Your task to perform on an android device: Search for "energizer triple a" on bestbuy.com, select the first entry, add it to the cart, then select checkout. Image 0: 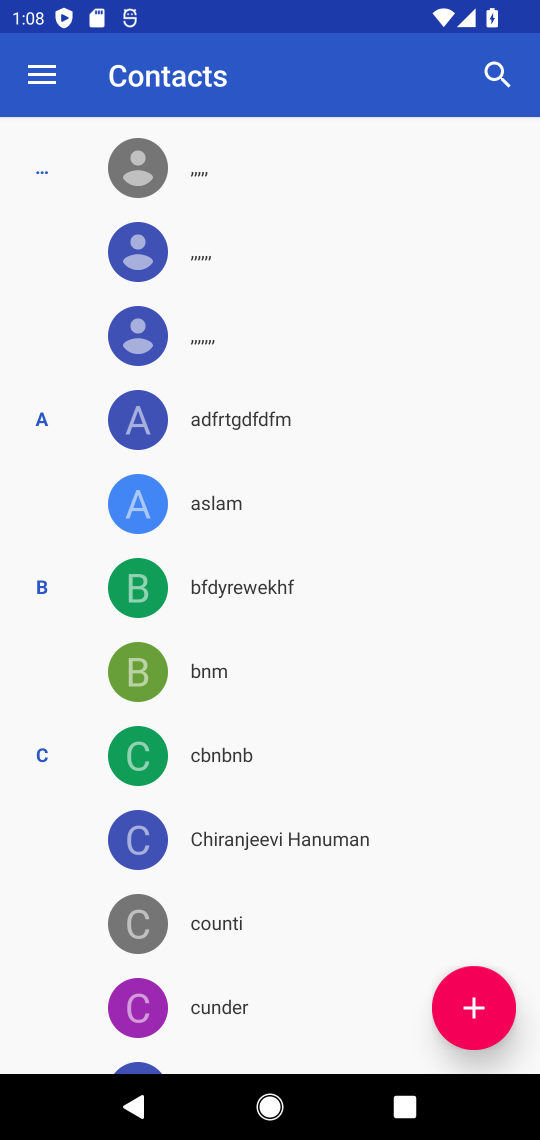
Step 0: press home button
Your task to perform on an android device: Search for "energizer triple a" on bestbuy.com, select the first entry, add it to the cart, then select checkout. Image 1: 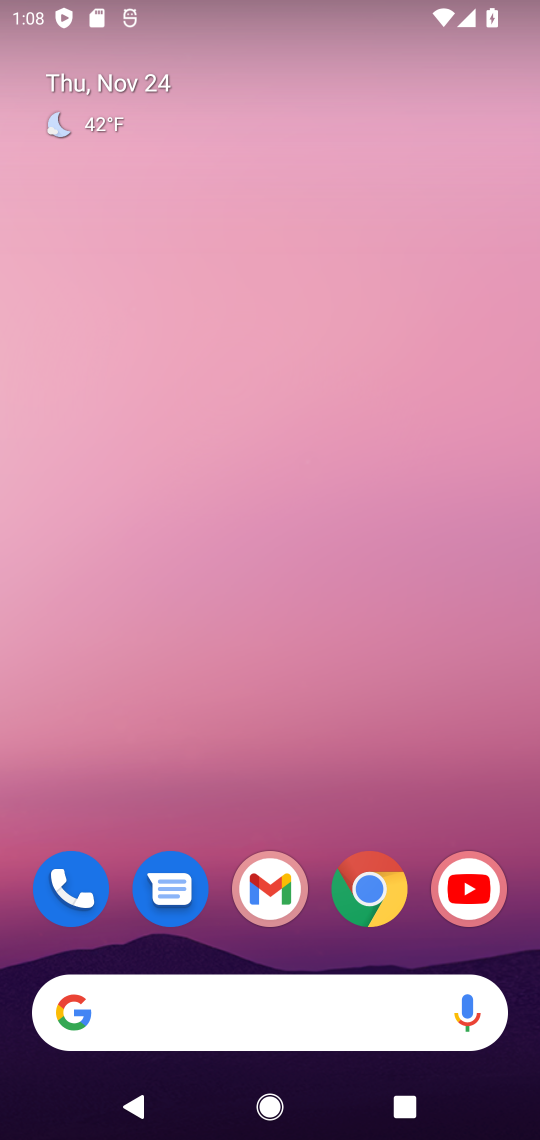
Step 1: click (375, 902)
Your task to perform on an android device: Search for "energizer triple a" on bestbuy.com, select the first entry, add it to the cart, then select checkout. Image 2: 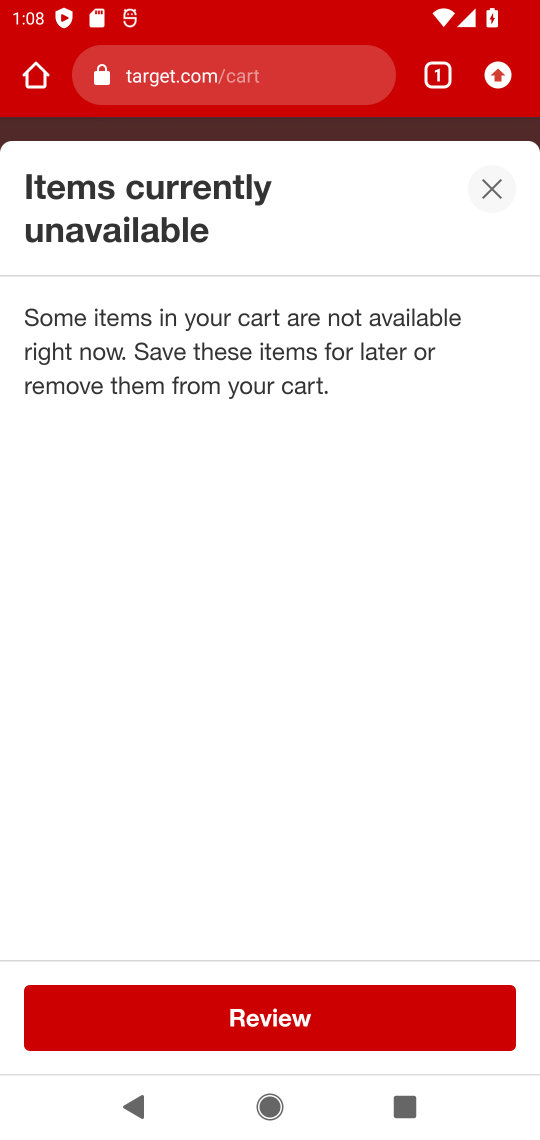
Step 2: click (174, 81)
Your task to perform on an android device: Search for "energizer triple a" on bestbuy.com, select the first entry, add it to the cart, then select checkout. Image 3: 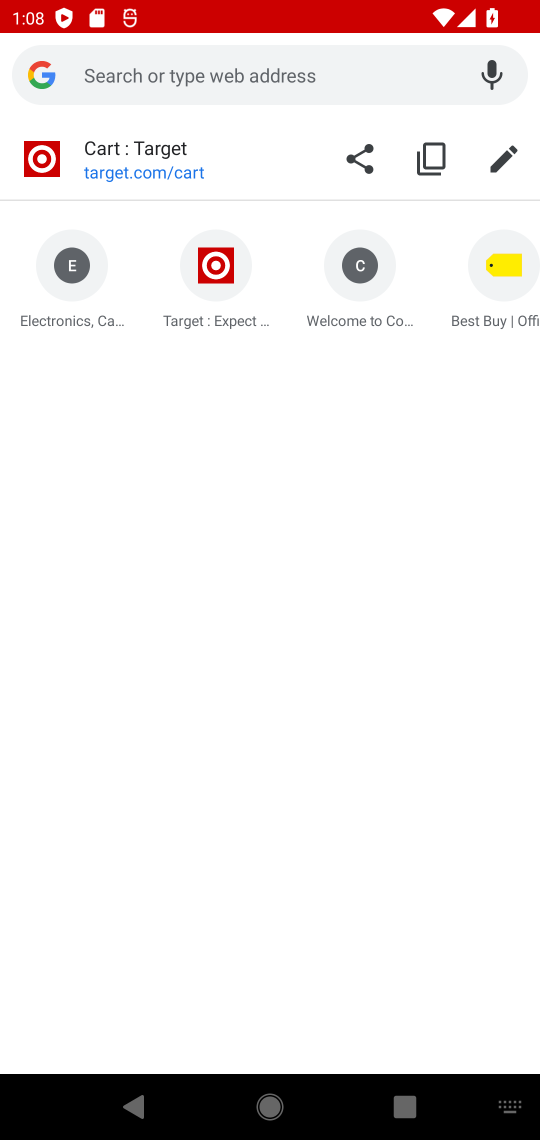
Step 3: click (496, 300)
Your task to perform on an android device: Search for "energizer triple a" on bestbuy.com, select the first entry, add it to the cart, then select checkout. Image 4: 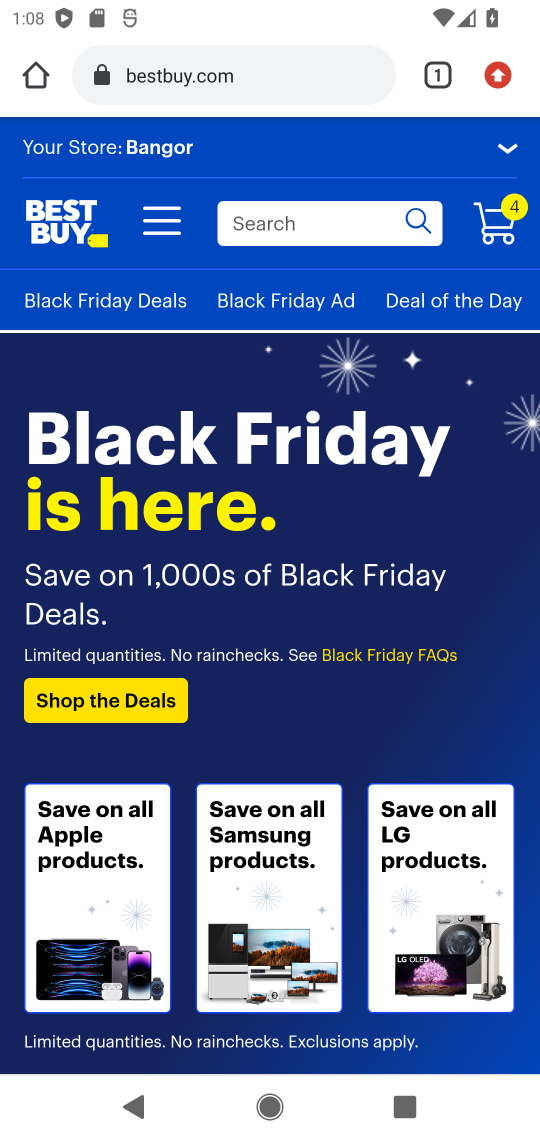
Step 4: click (257, 223)
Your task to perform on an android device: Search for "energizer triple a" on bestbuy.com, select the first entry, add it to the cart, then select checkout. Image 5: 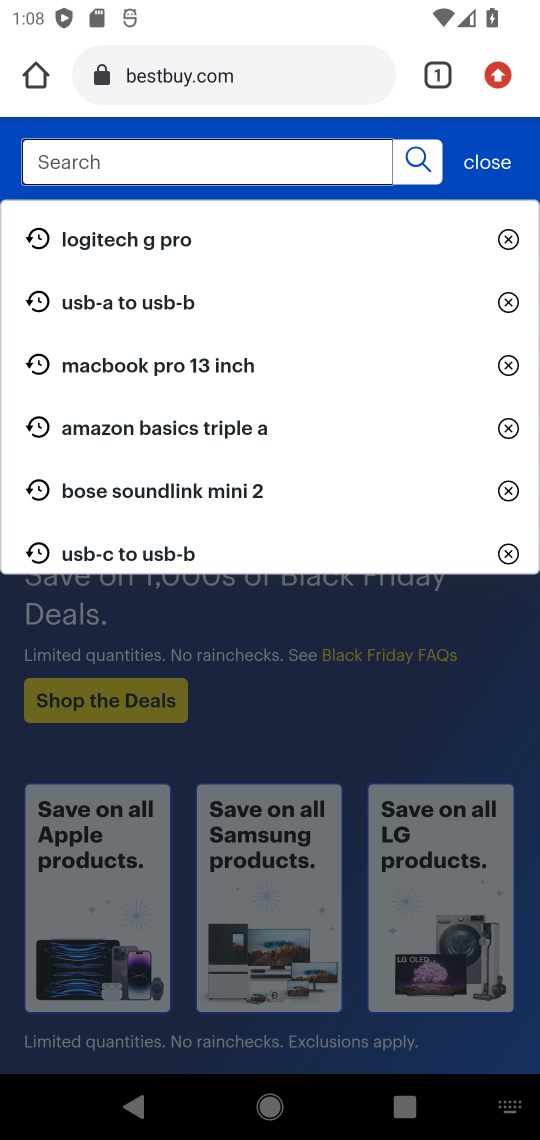
Step 5: type "energizer triple a"
Your task to perform on an android device: Search for "energizer triple a" on bestbuy.com, select the first entry, add it to the cart, then select checkout. Image 6: 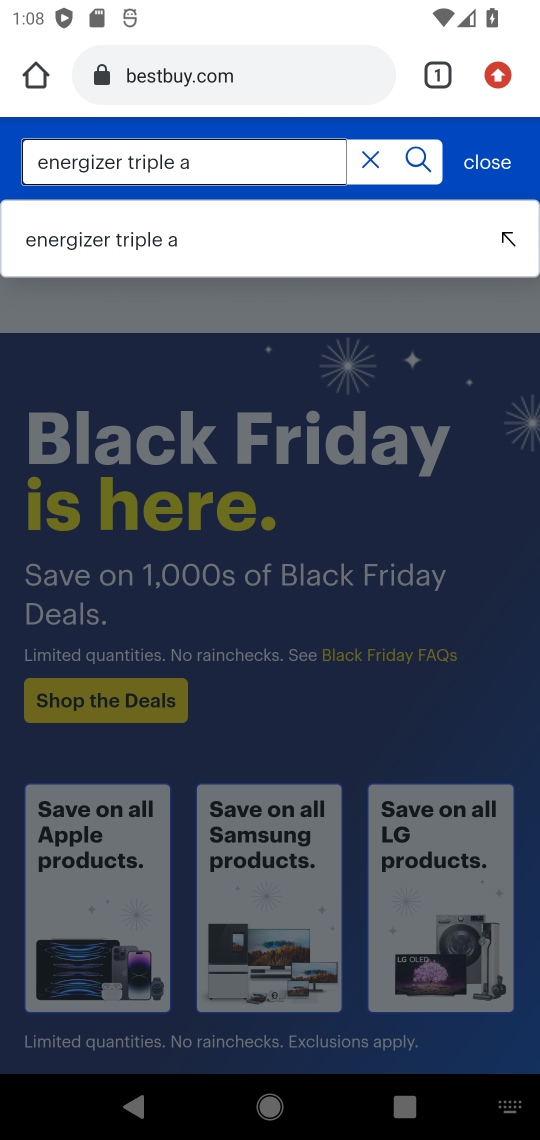
Step 6: click (135, 254)
Your task to perform on an android device: Search for "energizer triple a" on bestbuy.com, select the first entry, add it to the cart, then select checkout. Image 7: 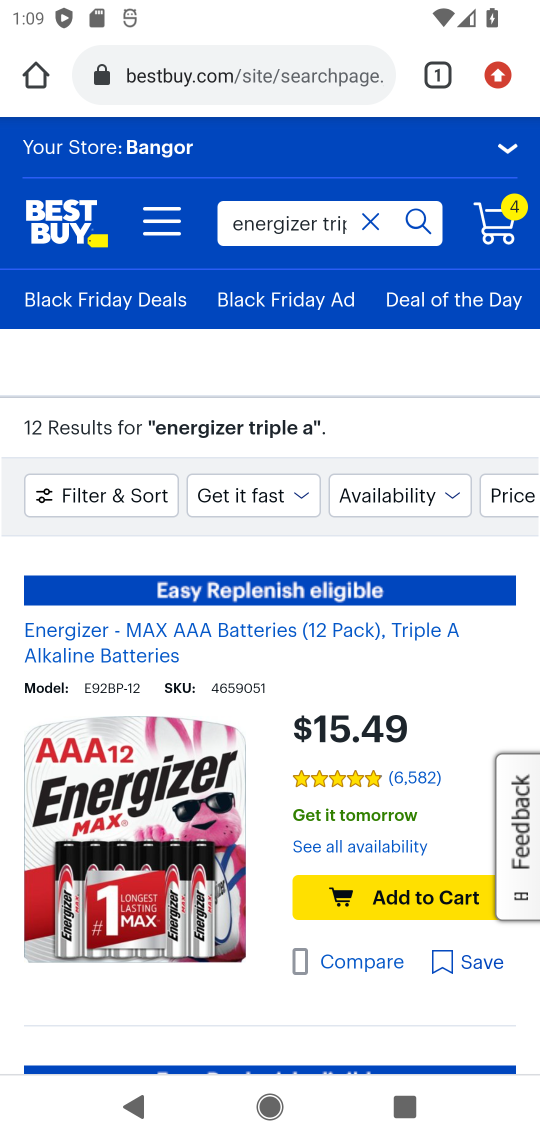
Step 7: click (409, 897)
Your task to perform on an android device: Search for "energizer triple a" on bestbuy.com, select the first entry, add it to the cart, then select checkout. Image 8: 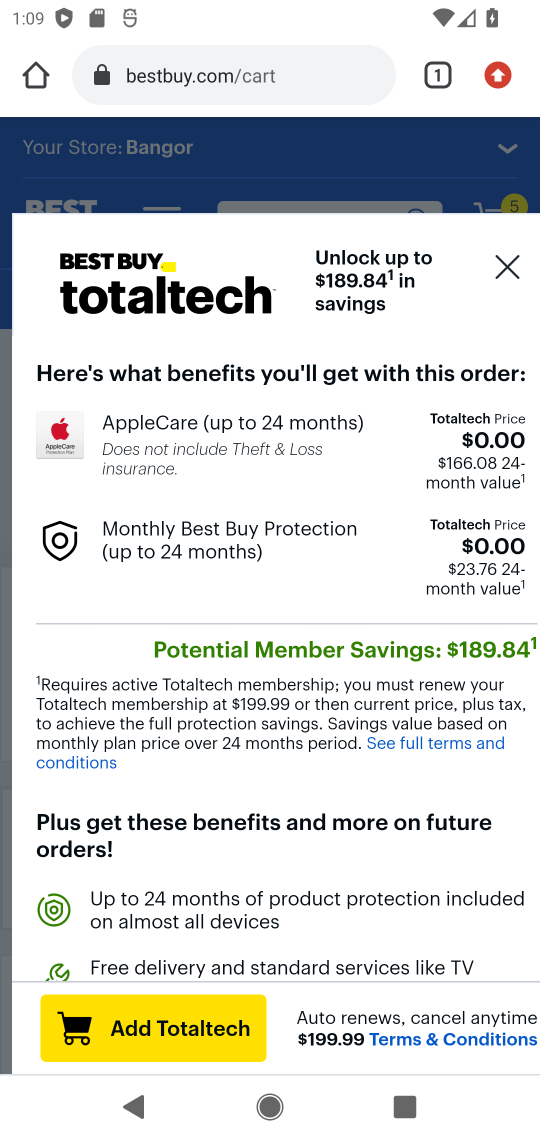
Step 8: click (505, 270)
Your task to perform on an android device: Search for "energizer triple a" on bestbuy.com, select the first entry, add it to the cart, then select checkout. Image 9: 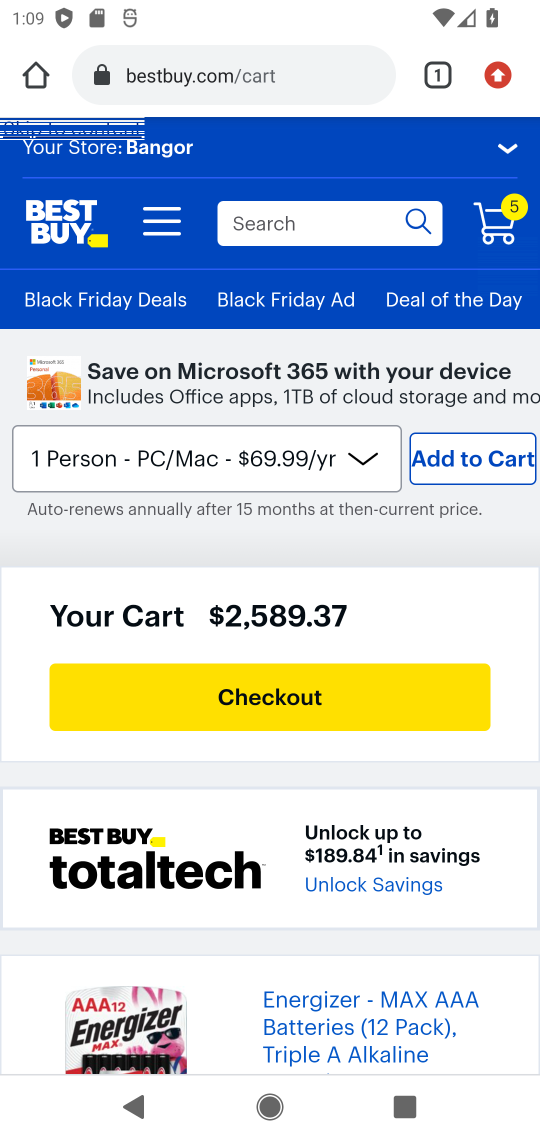
Step 9: click (252, 688)
Your task to perform on an android device: Search for "energizer triple a" on bestbuy.com, select the first entry, add it to the cart, then select checkout. Image 10: 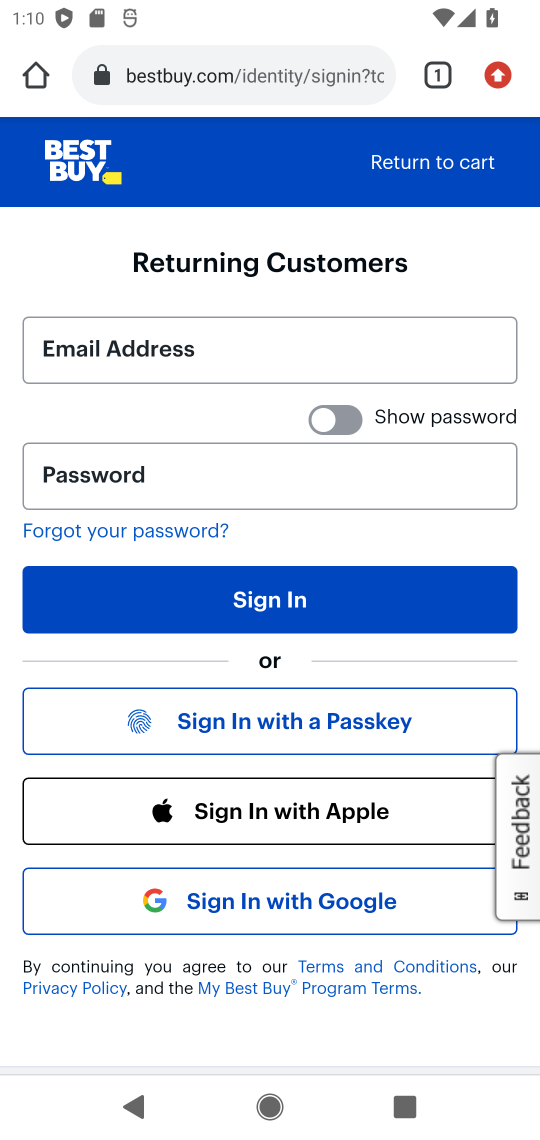
Step 10: task complete